Your task to perform on an android device: toggle wifi Image 0: 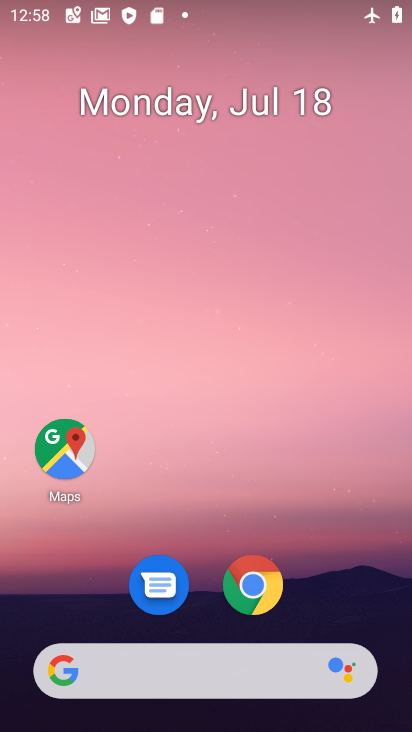
Step 0: press home button
Your task to perform on an android device: toggle wifi Image 1: 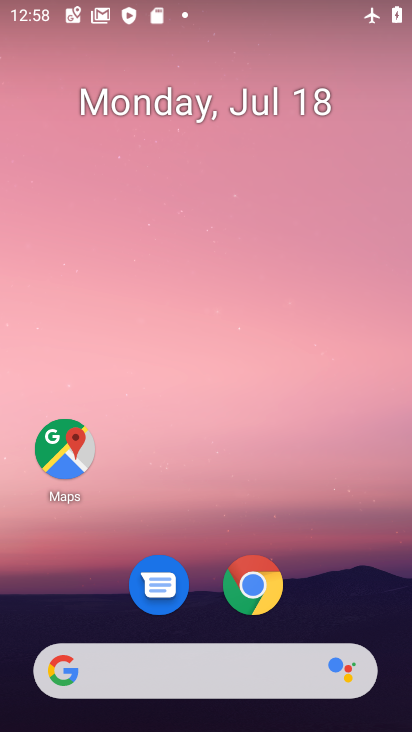
Step 1: drag from (203, 674) to (182, 256)
Your task to perform on an android device: toggle wifi Image 2: 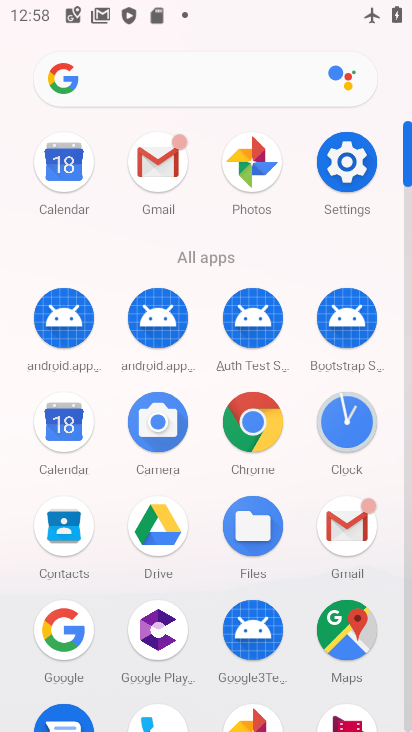
Step 2: click (351, 164)
Your task to perform on an android device: toggle wifi Image 3: 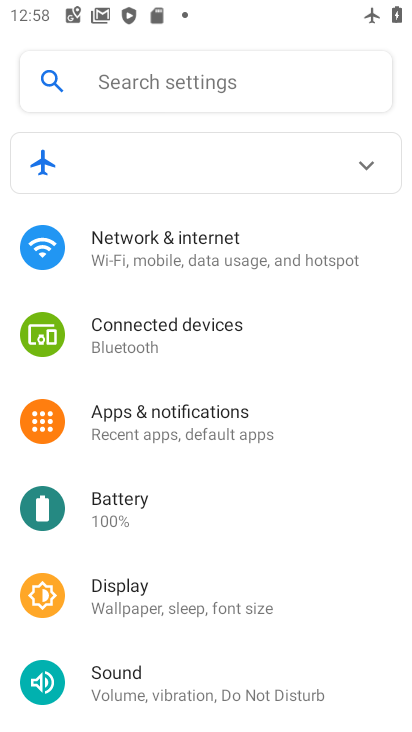
Step 3: click (190, 249)
Your task to perform on an android device: toggle wifi Image 4: 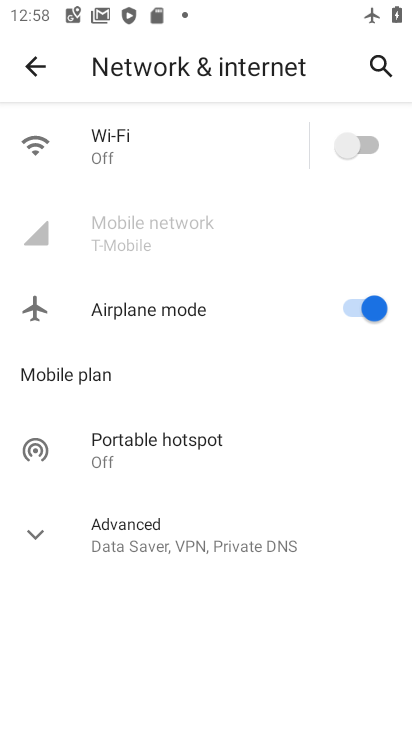
Step 4: click (361, 145)
Your task to perform on an android device: toggle wifi Image 5: 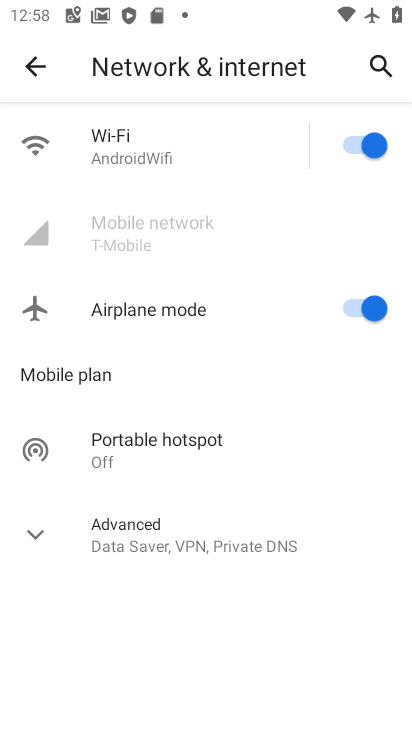
Step 5: task complete